Your task to perform on an android device: Add logitech g903 to the cart on bestbuy.com, then select checkout. Image 0: 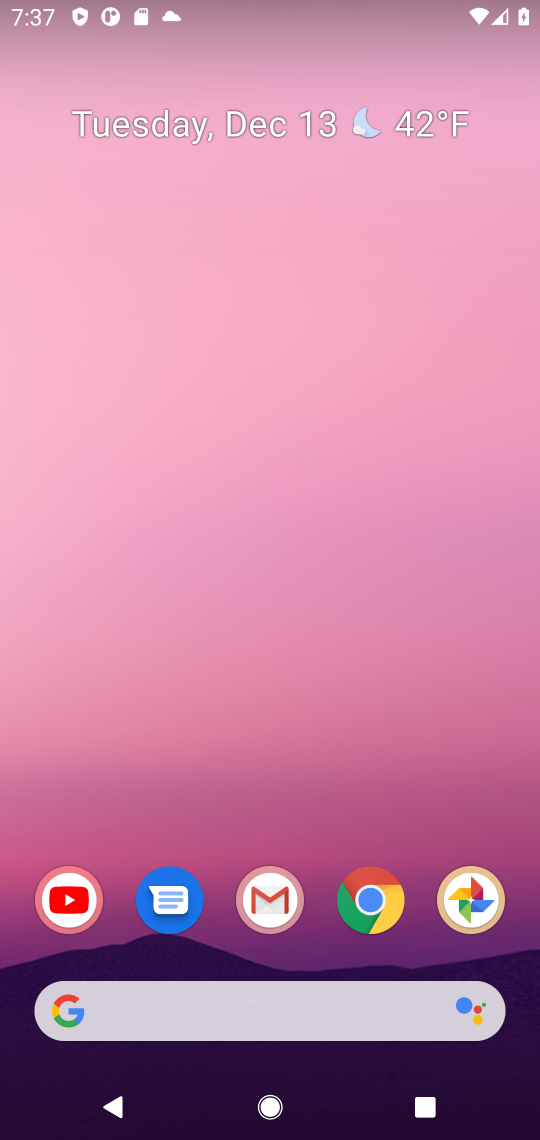
Step 0: click (376, 904)
Your task to perform on an android device: Add logitech g903 to the cart on bestbuy.com, then select checkout. Image 1: 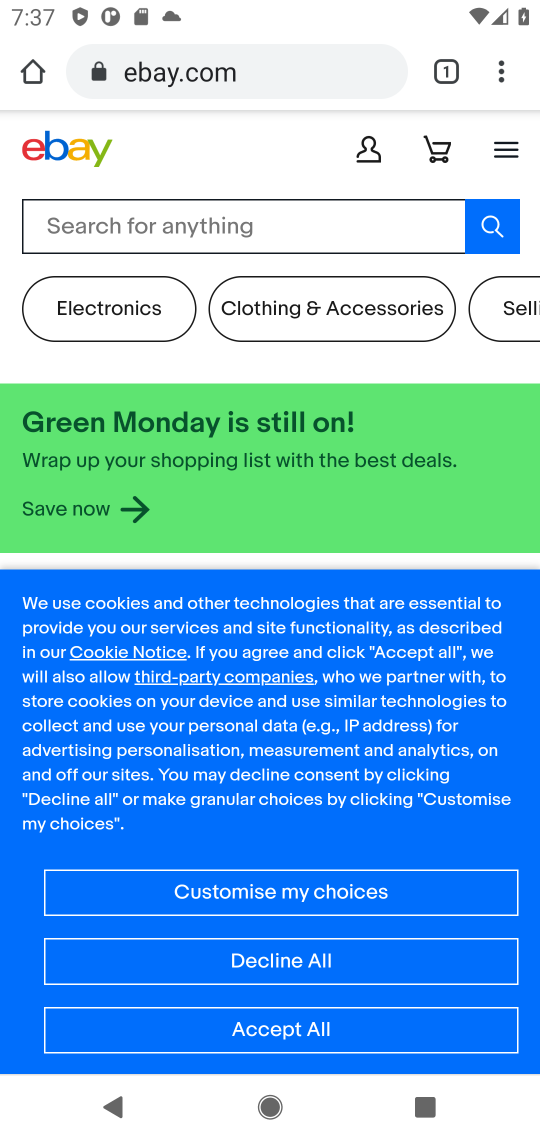
Step 1: click (256, 74)
Your task to perform on an android device: Add logitech g903 to the cart on bestbuy.com, then select checkout. Image 2: 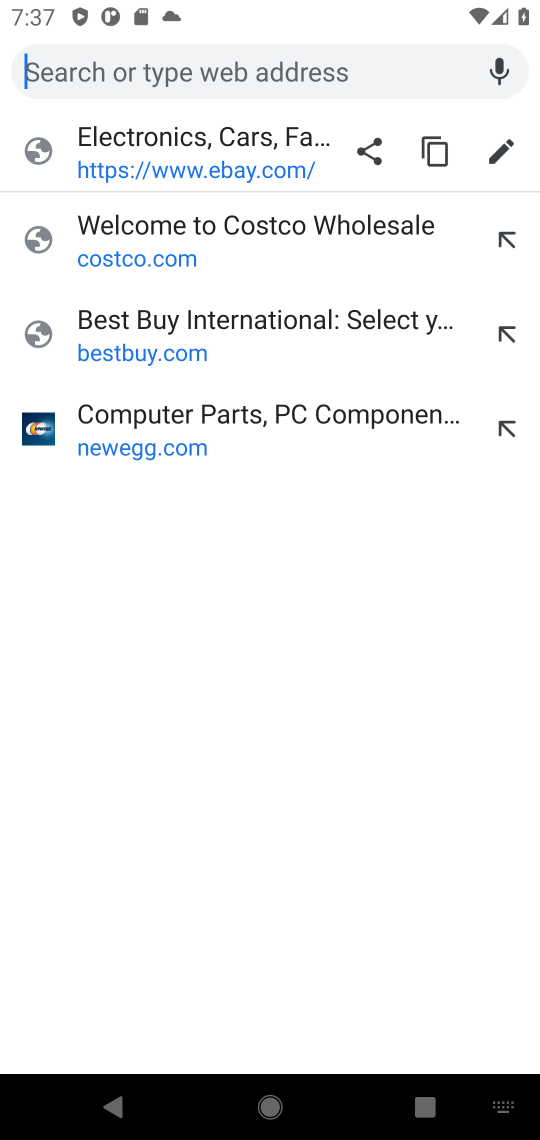
Step 2: type "bestbuy"
Your task to perform on an android device: Add logitech g903 to the cart on bestbuy.com, then select checkout. Image 3: 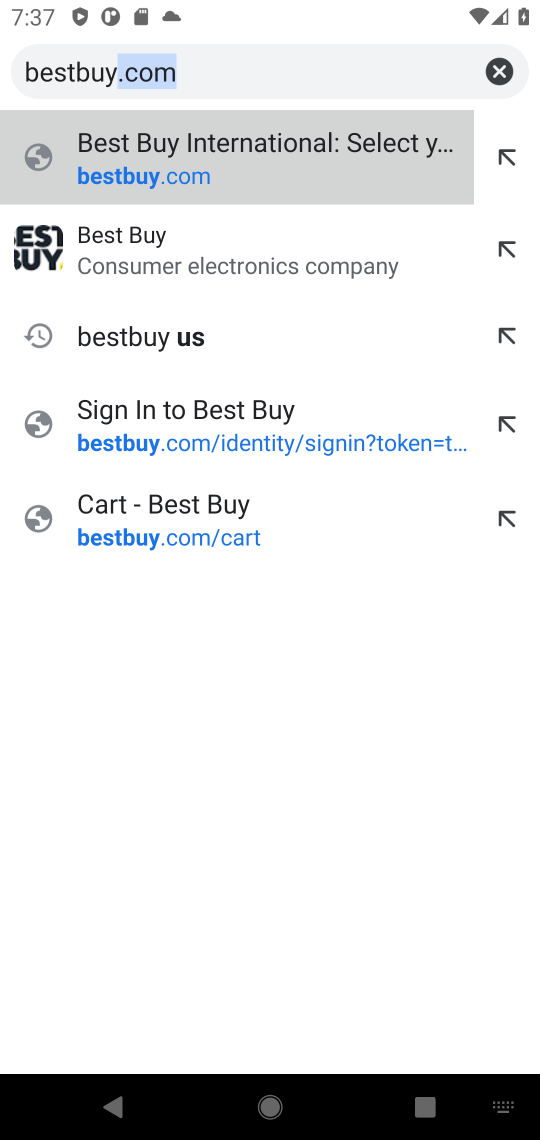
Step 3: click (191, 166)
Your task to perform on an android device: Add logitech g903 to the cart on bestbuy.com, then select checkout. Image 4: 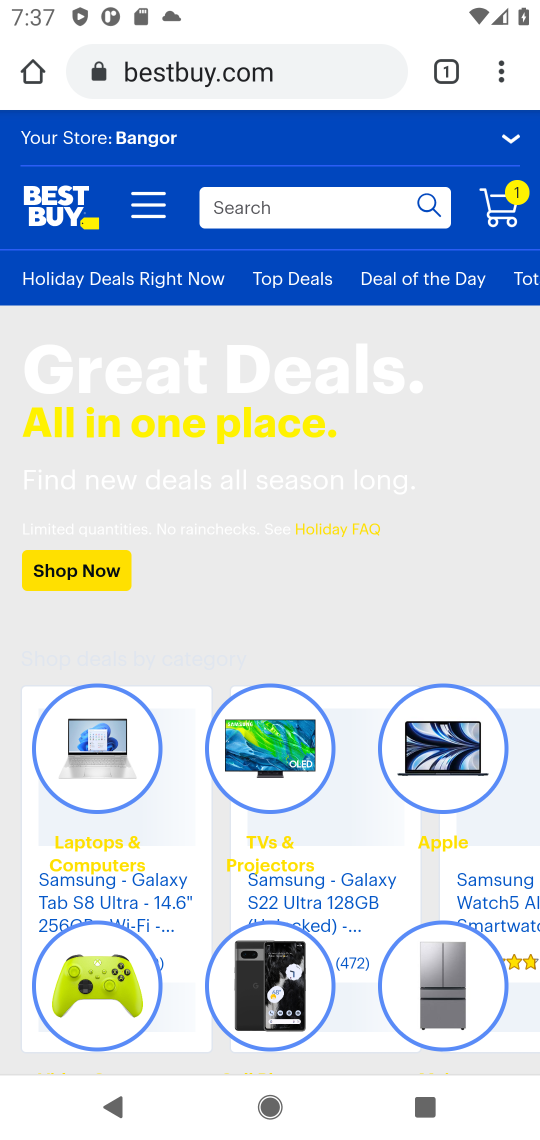
Step 4: click (351, 201)
Your task to perform on an android device: Add logitech g903 to the cart on bestbuy.com, then select checkout. Image 5: 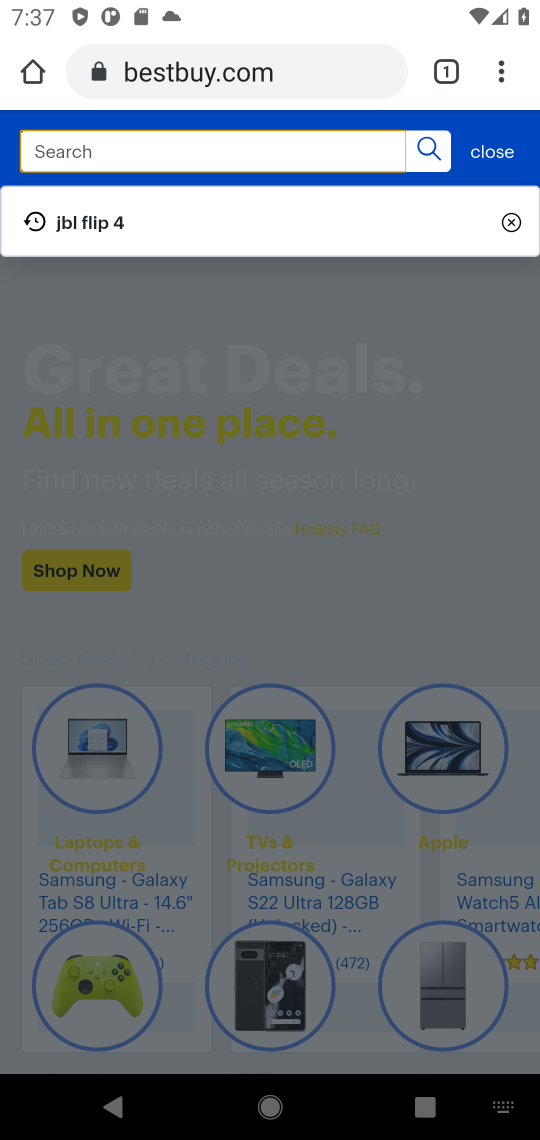
Step 5: type "logitech g903"
Your task to perform on an android device: Add logitech g903 to the cart on bestbuy.com, then select checkout. Image 6: 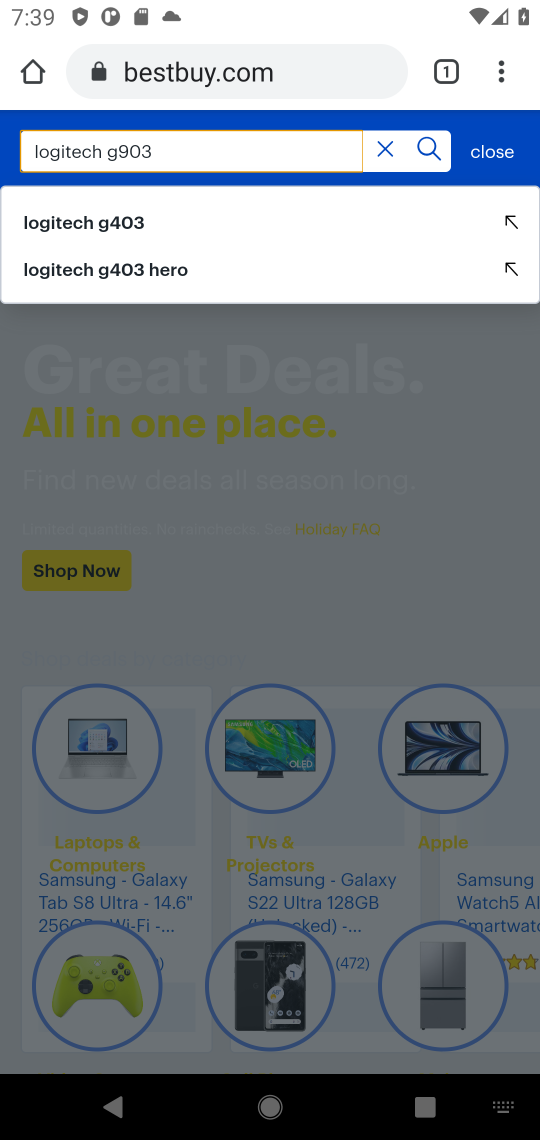
Step 6: click (168, 223)
Your task to perform on an android device: Add logitech g903 to the cart on bestbuy.com, then select checkout. Image 7: 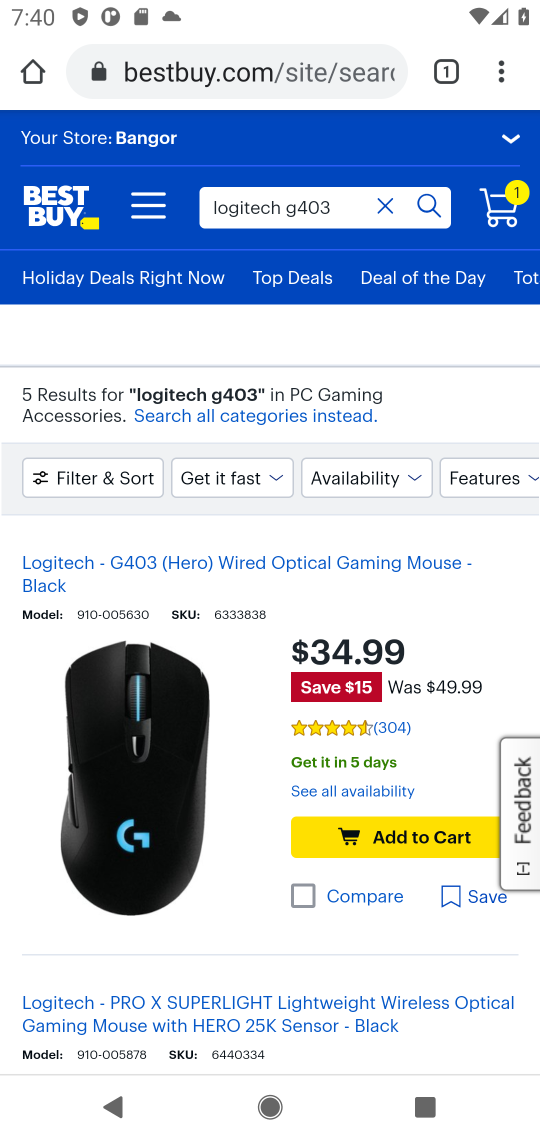
Step 7: click (399, 839)
Your task to perform on an android device: Add logitech g903 to the cart on bestbuy.com, then select checkout. Image 8: 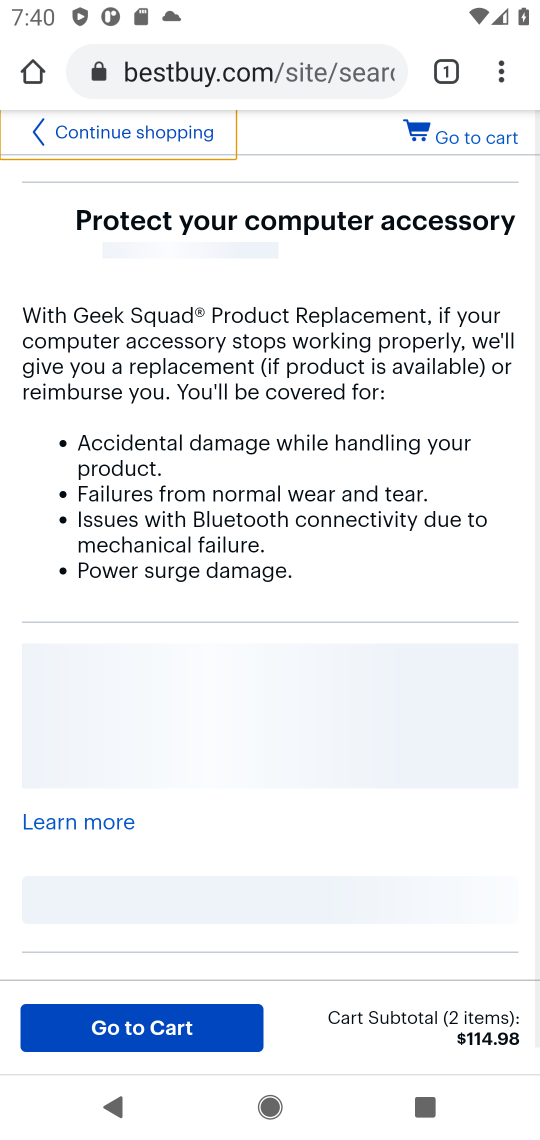
Step 8: click (164, 1026)
Your task to perform on an android device: Add logitech g903 to the cart on bestbuy.com, then select checkout. Image 9: 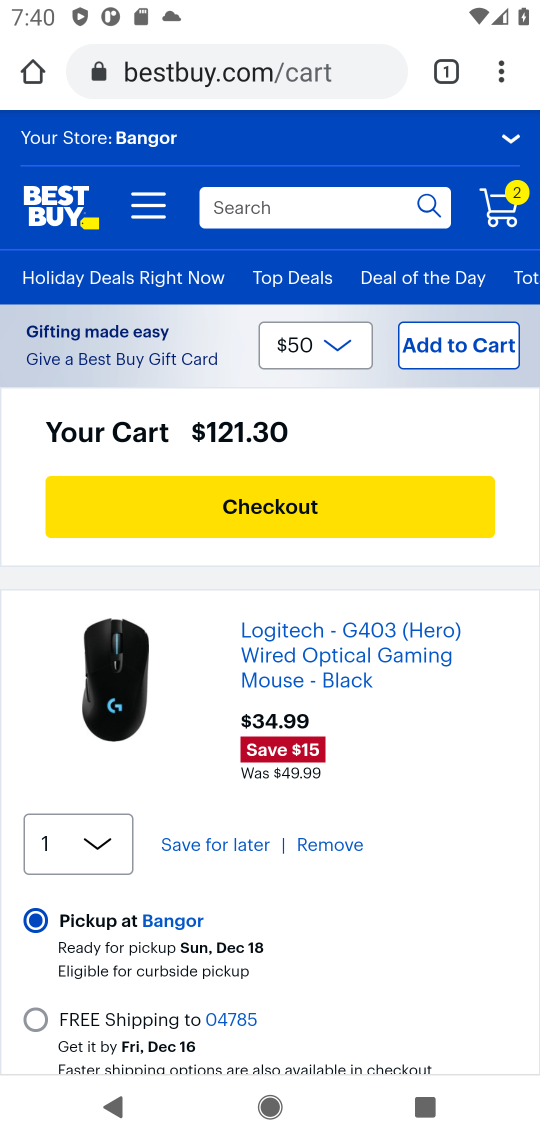
Step 9: click (285, 494)
Your task to perform on an android device: Add logitech g903 to the cart on bestbuy.com, then select checkout. Image 10: 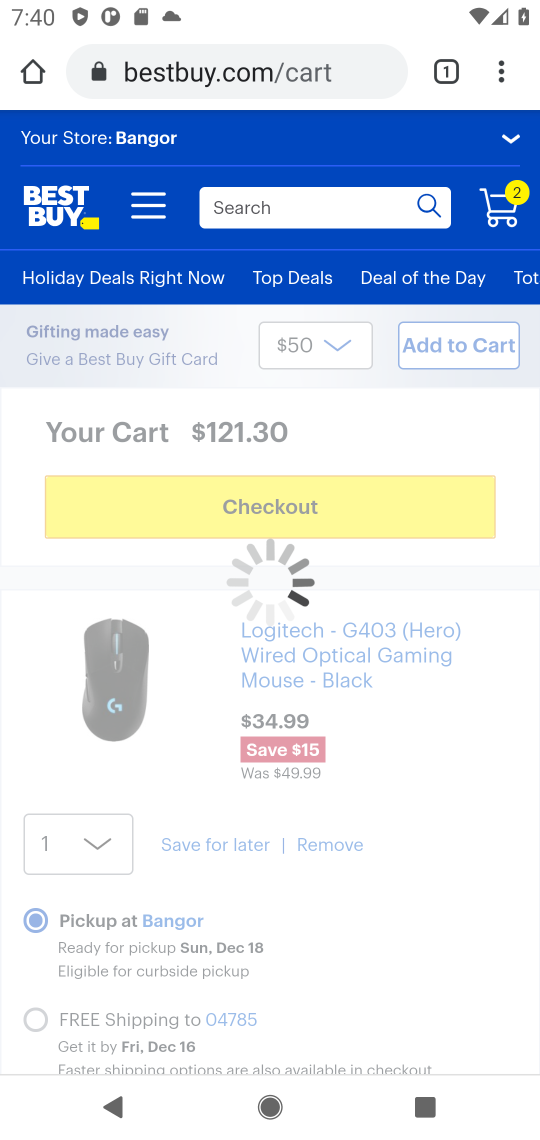
Step 10: task complete